Your task to perform on an android device: Open Youtube and go to the subscriptions tab Image 0: 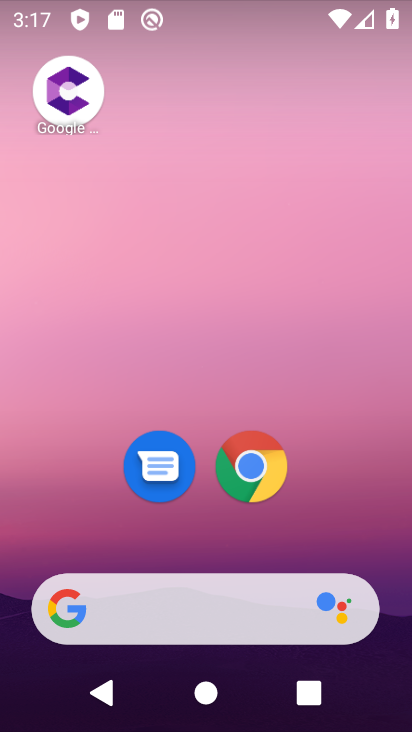
Step 0: drag from (67, 532) to (176, 66)
Your task to perform on an android device: Open Youtube and go to the subscriptions tab Image 1: 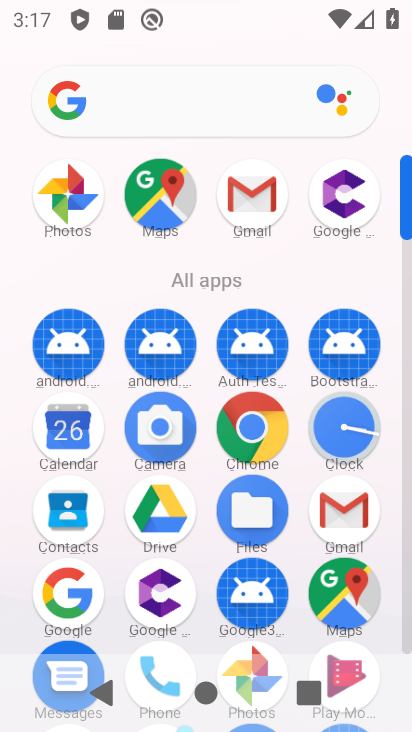
Step 1: drag from (267, 589) to (324, 328)
Your task to perform on an android device: Open Youtube and go to the subscriptions tab Image 2: 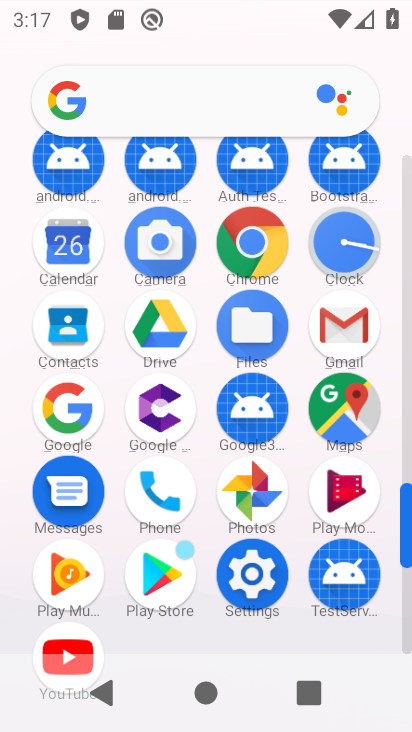
Step 2: click (96, 654)
Your task to perform on an android device: Open Youtube and go to the subscriptions tab Image 3: 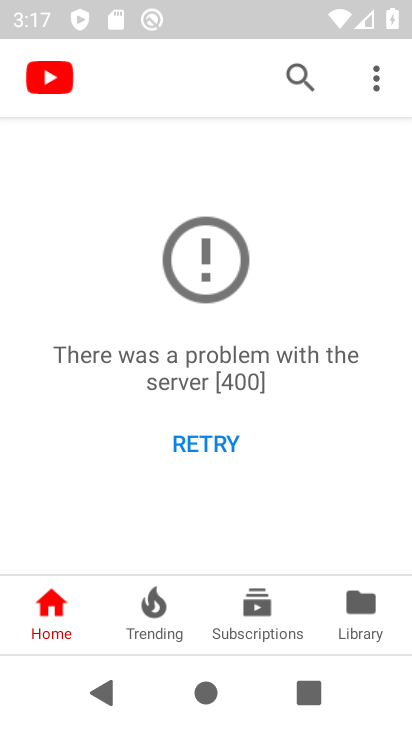
Step 3: click (295, 630)
Your task to perform on an android device: Open Youtube and go to the subscriptions tab Image 4: 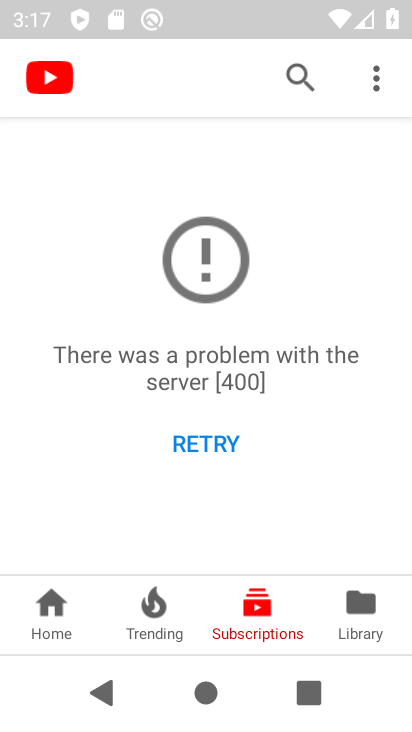
Step 4: click (295, 630)
Your task to perform on an android device: Open Youtube and go to the subscriptions tab Image 5: 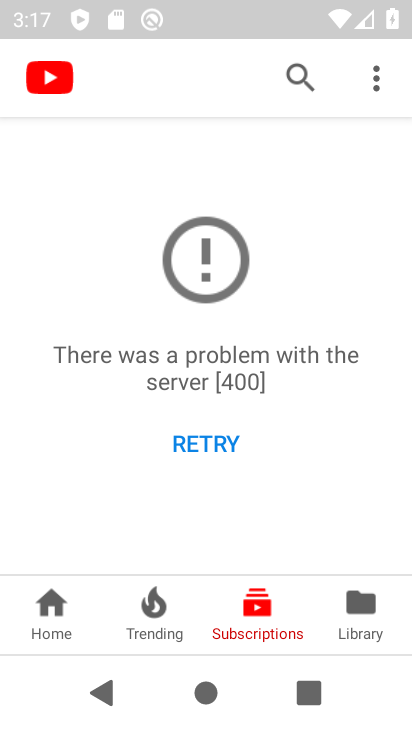
Step 5: task complete